Your task to perform on an android device: change your default location settings in chrome Image 0: 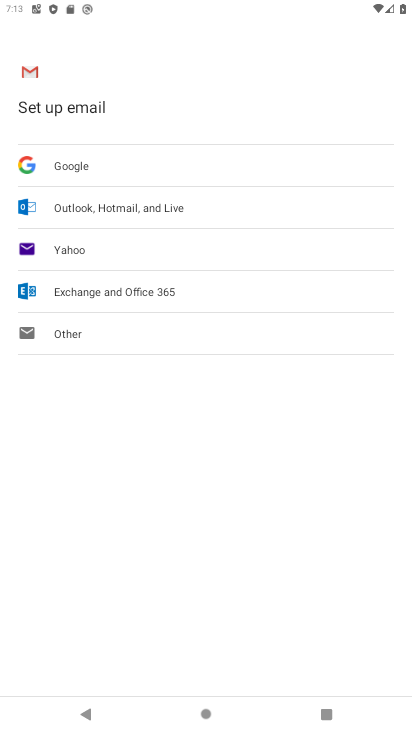
Step 0: press home button
Your task to perform on an android device: change your default location settings in chrome Image 1: 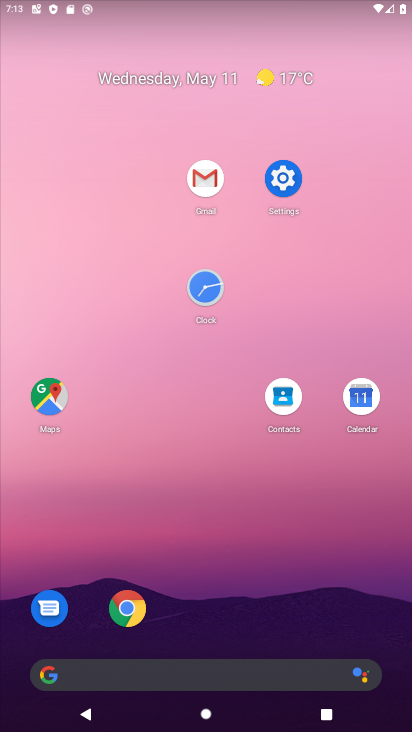
Step 1: click (278, 616)
Your task to perform on an android device: change your default location settings in chrome Image 2: 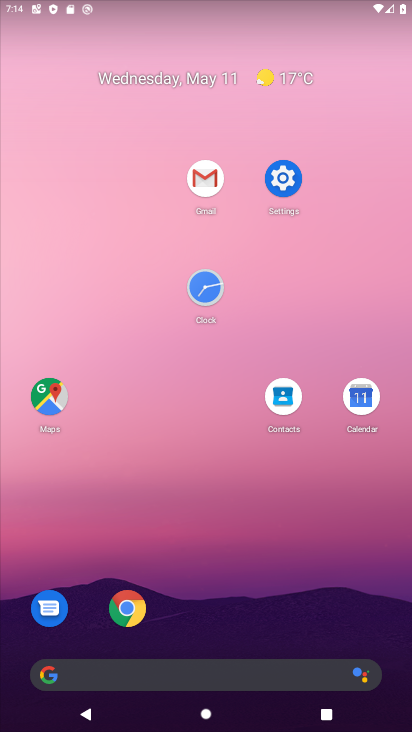
Step 2: click (140, 619)
Your task to perform on an android device: change your default location settings in chrome Image 3: 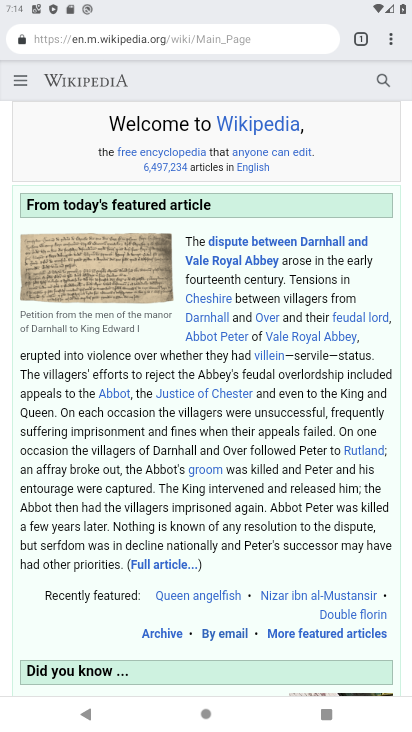
Step 3: click (393, 31)
Your task to perform on an android device: change your default location settings in chrome Image 4: 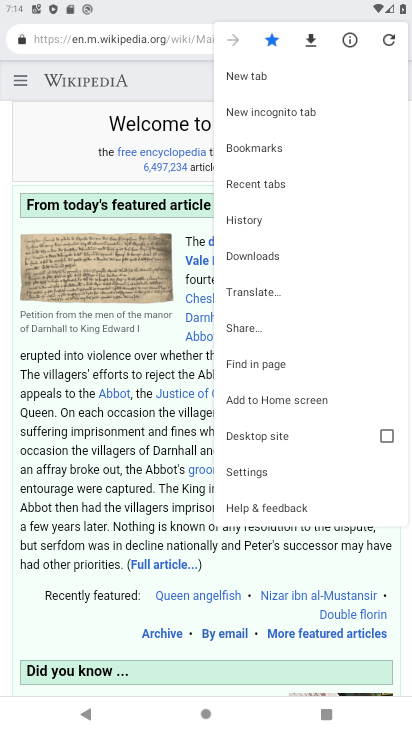
Step 4: click (238, 462)
Your task to perform on an android device: change your default location settings in chrome Image 5: 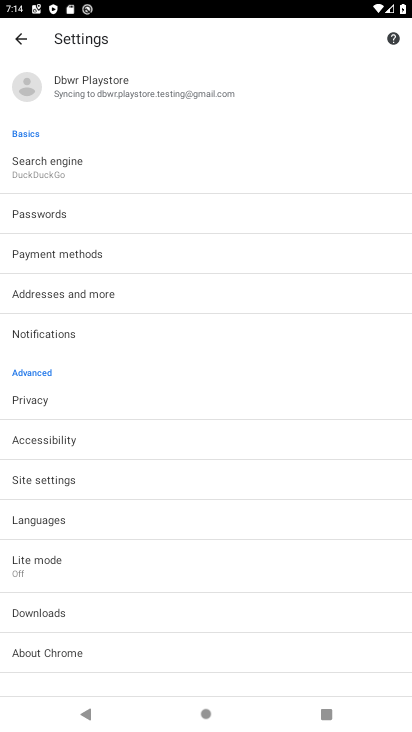
Step 5: click (178, 296)
Your task to perform on an android device: change your default location settings in chrome Image 6: 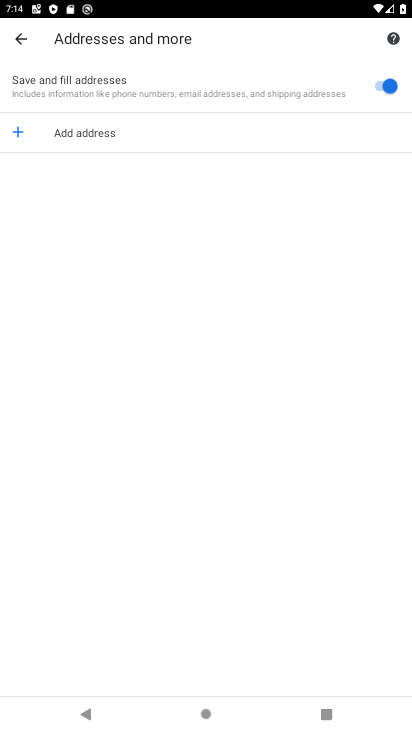
Step 6: click (334, 81)
Your task to perform on an android device: change your default location settings in chrome Image 7: 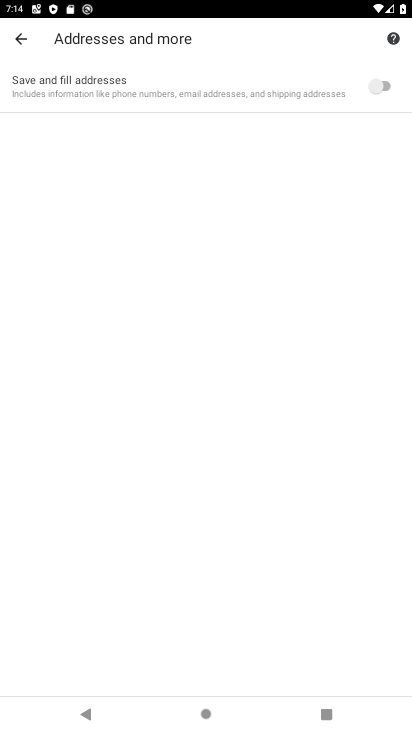
Step 7: task complete